Your task to perform on an android device: Go to network settings Image 0: 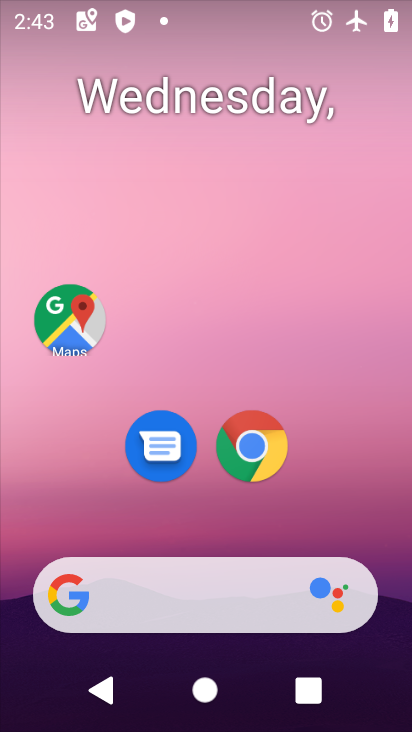
Step 0: drag from (198, 525) to (216, 198)
Your task to perform on an android device: Go to network settings Image 1: 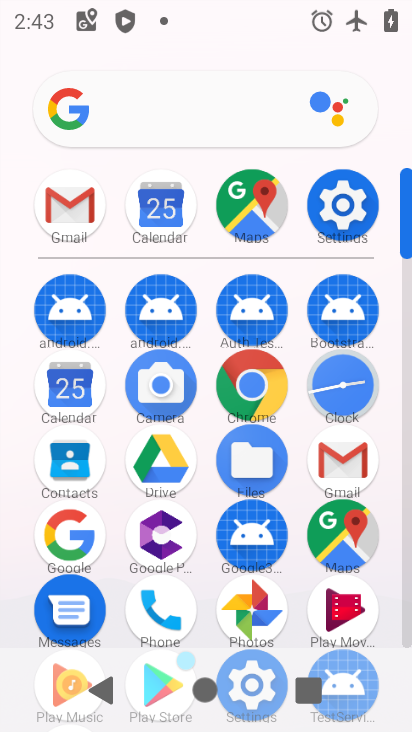
Step 1: click (330, 204)
Your task to perform on an android device: Go to network settings Image 2: 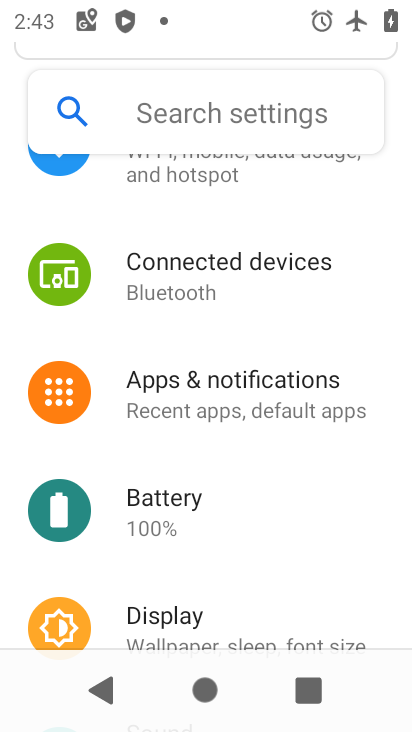
Step 2: drag from (283, 205) to (283, 487)
Your task to perform on an android device: Go to network settings Image 3: 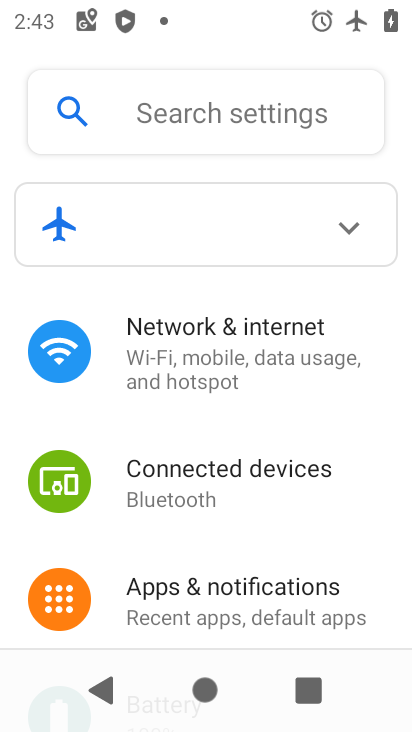
Step 3: click (246, 366)
Your task to perform on an android device: Go to network settings Image 4: 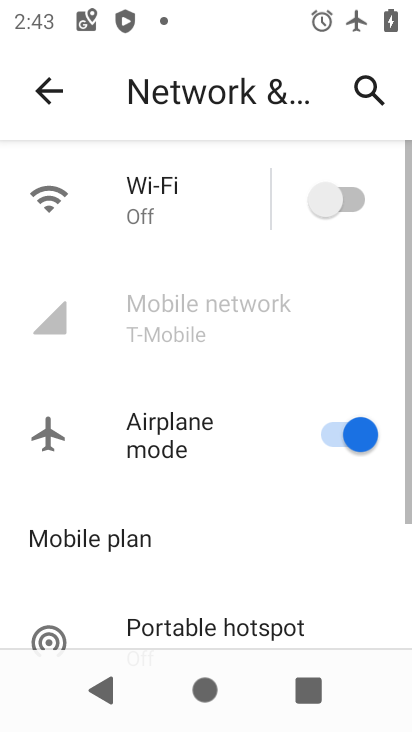
Step 4: click (223, 309)
Your task to perform on an android device: Go to network settings Image 5: 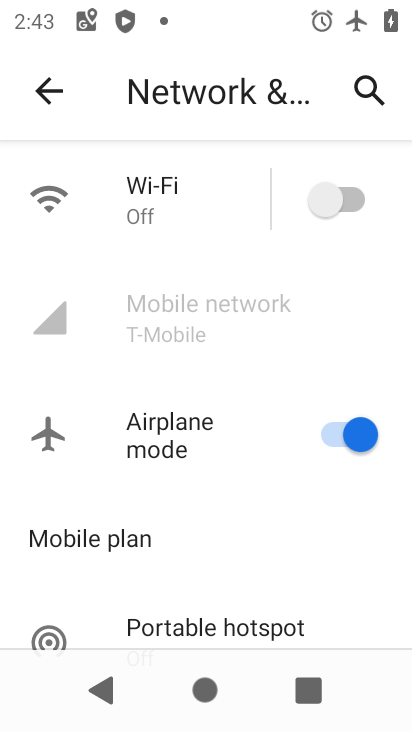
Step 5: task complete